Your task to perform on an android device: change notification settings in the gmail app Image 0: 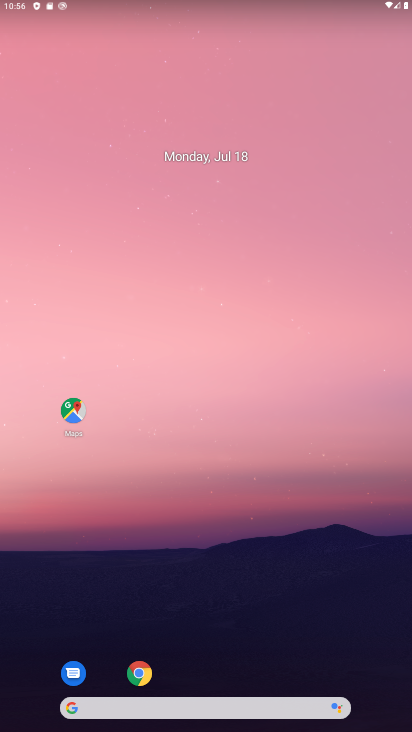
Step 0: press home button
Your task to perform on an android device: change notification settings in the gmail app Image 1: 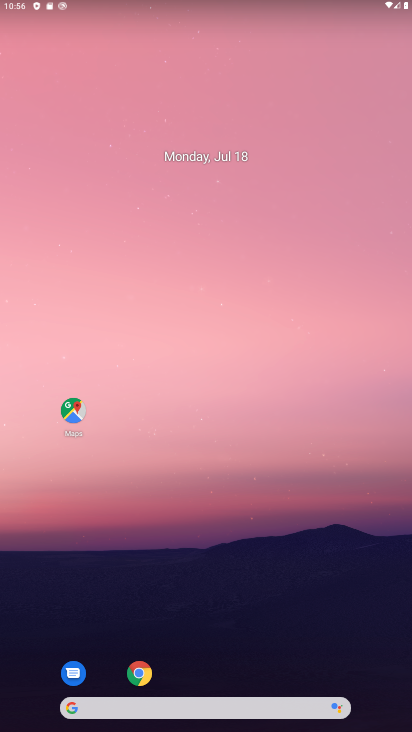
Step 1: drag from (219, 676) to (198, 110)
Your task to perform on an android device: change notification settings in the gmail app Image 2: 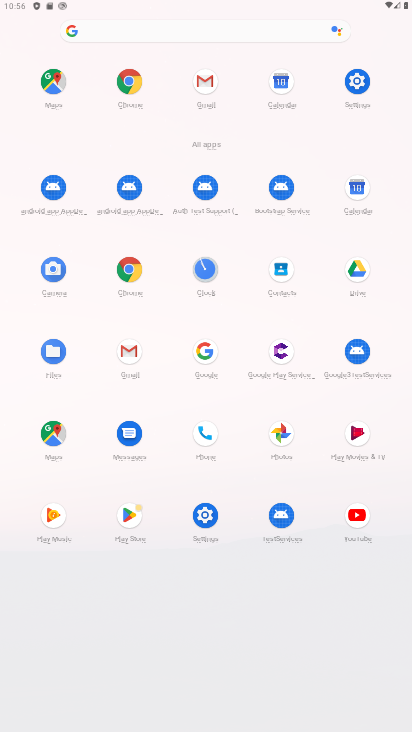
Step 2: click (130, 348)
Your task to perform on an android device: change notification settings in the gmail app Image 3: 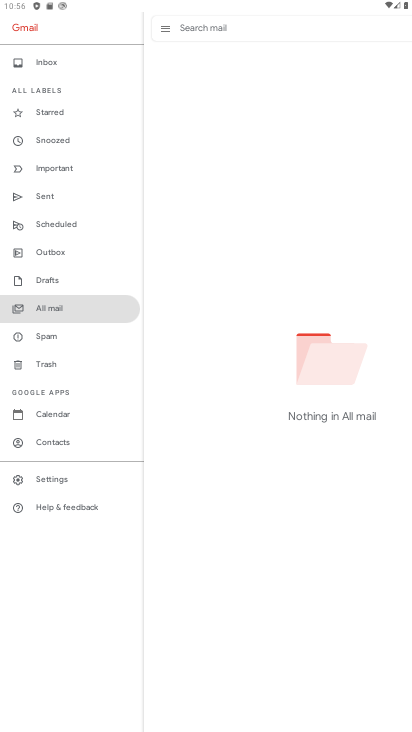
Step 3: click (71, 474)
Your task to perform on an android device: change notification settings in the gmail app Image 4: 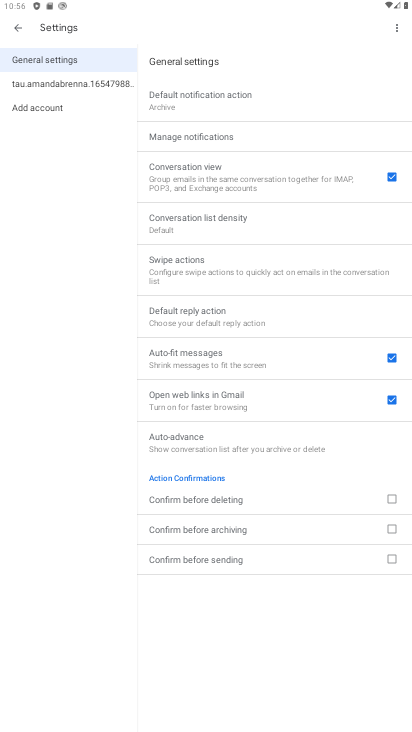
Step 4: click (223, 132)
Your task to perform on an android device: change notification settings in the gmail app Image 5: 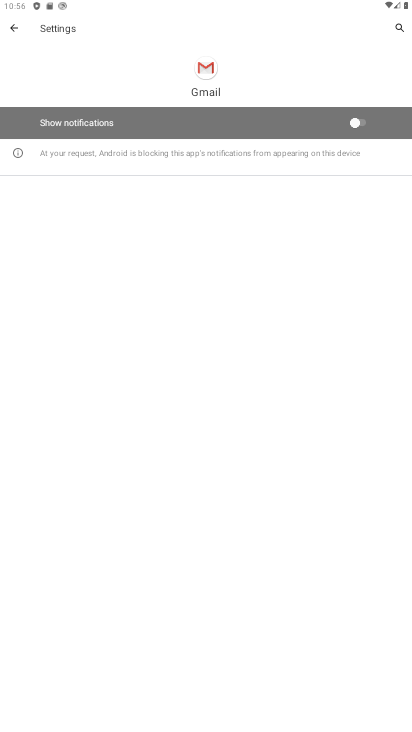
Step 5: click (360, 125)
Your task to perform on an android device: change notification settings in the gmail app Image 6: 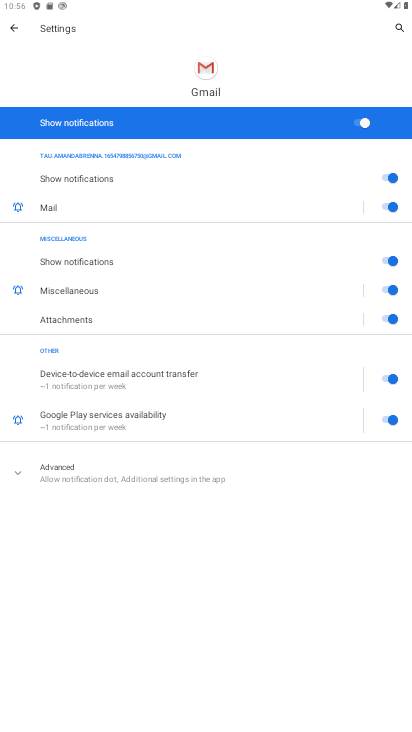
Step 6: task complete